Your task to perform on an android device: Open Chrome and go to settings Image 0: 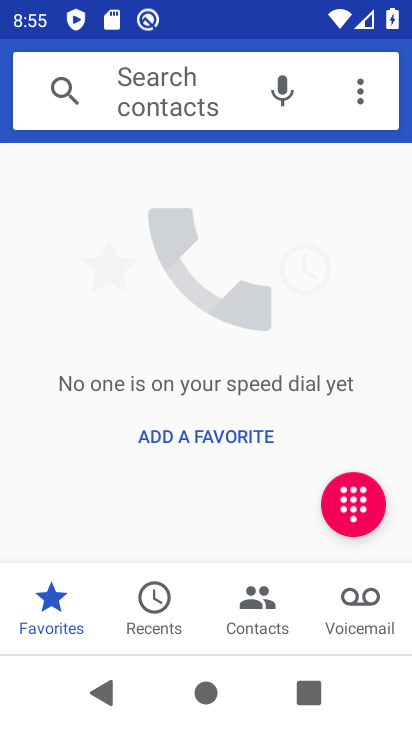
Step 0: press home button
Your task to perform on an android device: Open Chrome and go to settings Image 1: 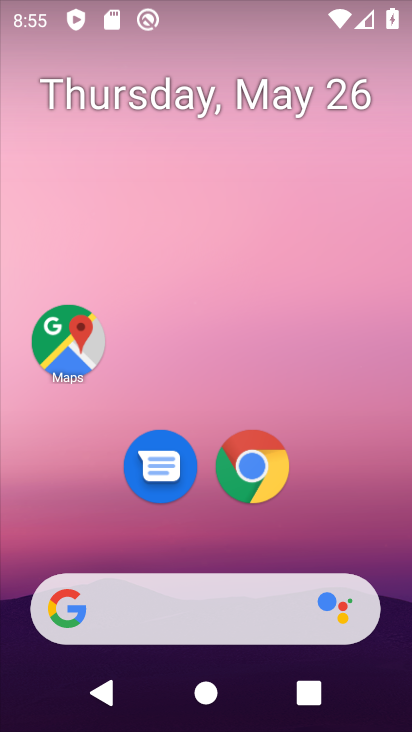
Step 1: drag from (346, 518) to (220, 73)
Your task to perform on an android device: Open Chrome and go to settings Image 2: 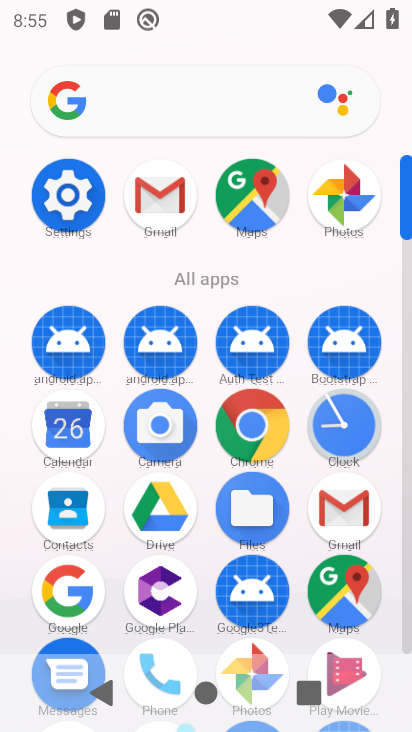
Step 2: click (249, 429)
Your task to perform on an android device: Open Chrome and go to settings Image 3: 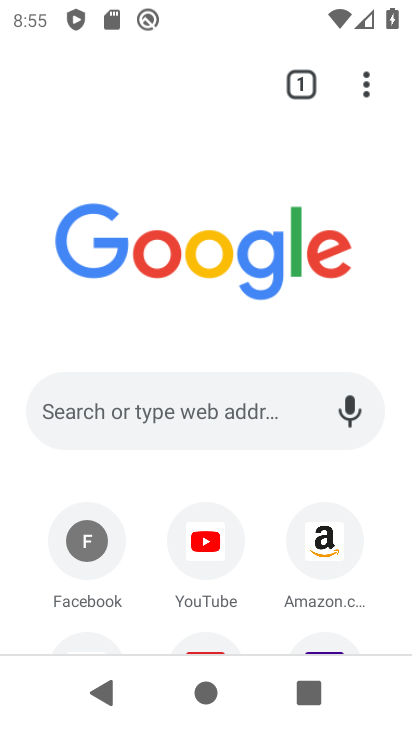
Step 3: click (365, 83)
Your task to perform on an android device: Open Chrome and go to settings Image 4: 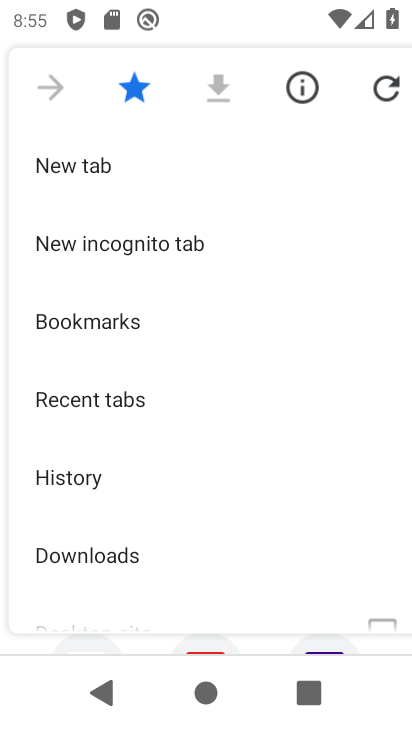
Step 4: drag from (208, 510) to (111, 98)
Your task to perform on an android device: Open Chrome and go to settings Image 5: 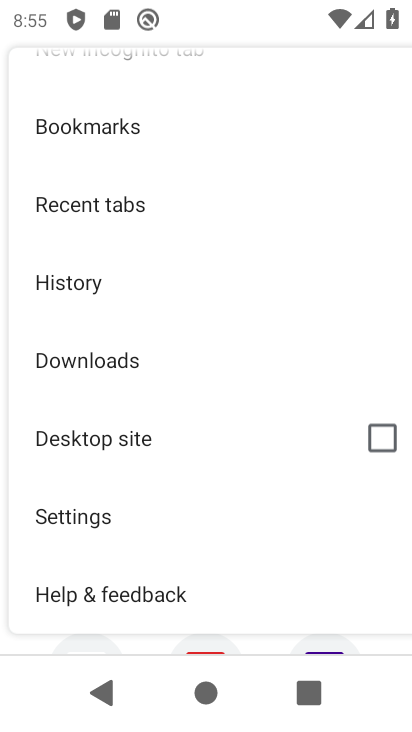
Step 5: click (68, 519)
Your task to perform on an android device: Open Chrome and go to settings Image 6: 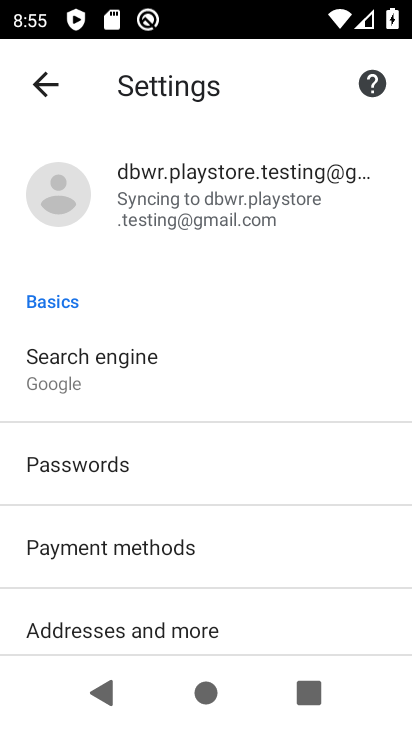
Step 6: click (166, 228)
Your task to perform on an android device: Open Chrome and go to settings Image 7: 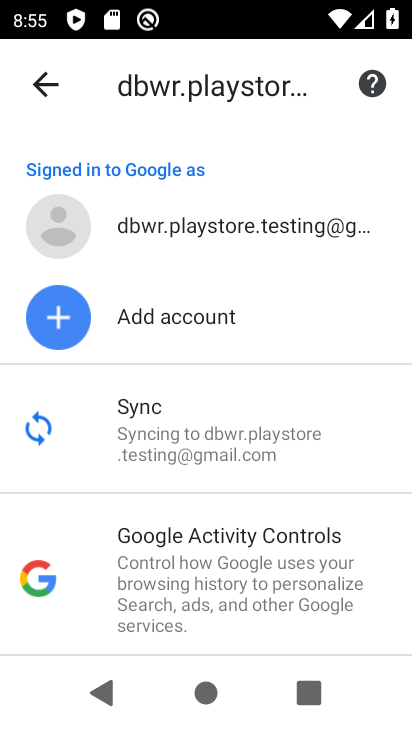
Step 7: task complete